Your task to perform on an android device: turn on location history Image 0: 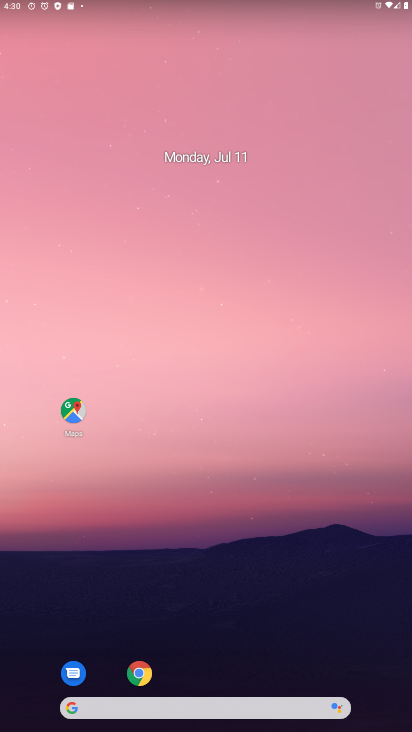
Step 0: drag from (254, 632) to (354, 94)
Your task to perform on an android device: turn on location history Image 1: 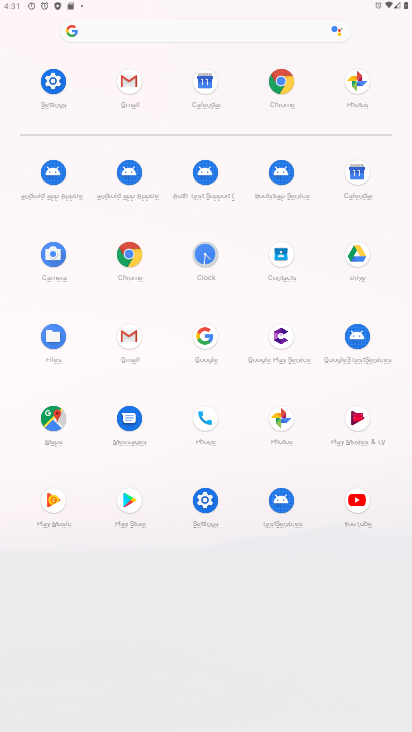
Step 1: click (212, 501)
Your task to perform on an android device: turn on location history Image 2: 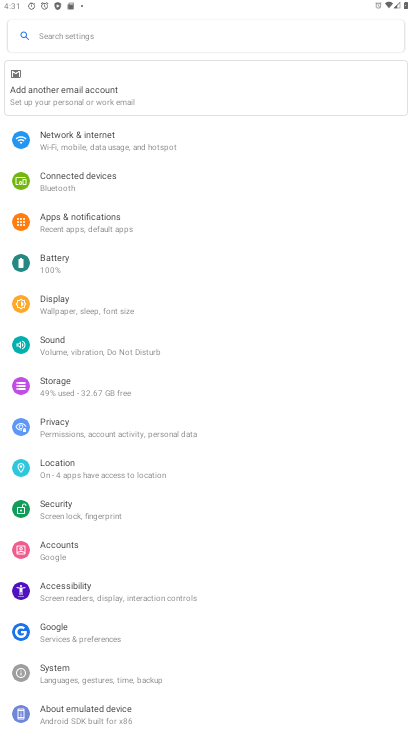
Step 2: click (46, 468)
Your task to perform on an android device: turn on location history Image 3: 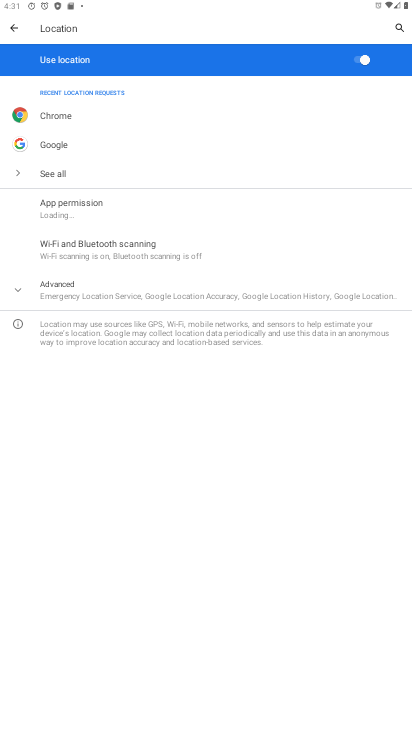
Step 3: task complete